Your task to perform on an android device: toggle pop-ups in chrome Image 0: 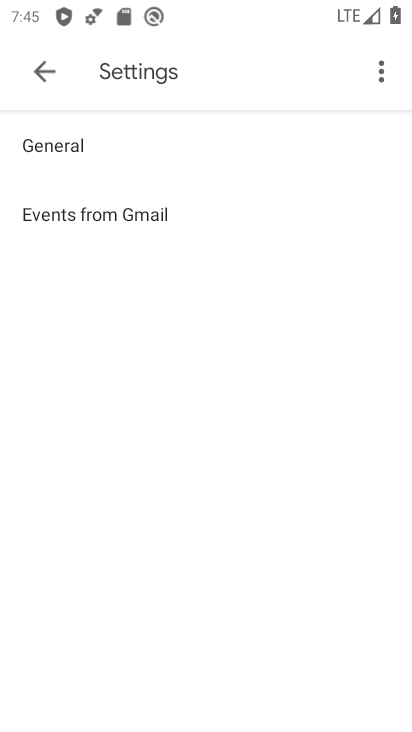
Step 0: press back button
Your task to perform on an android device: toggle pop-ups in chrome Image 1: 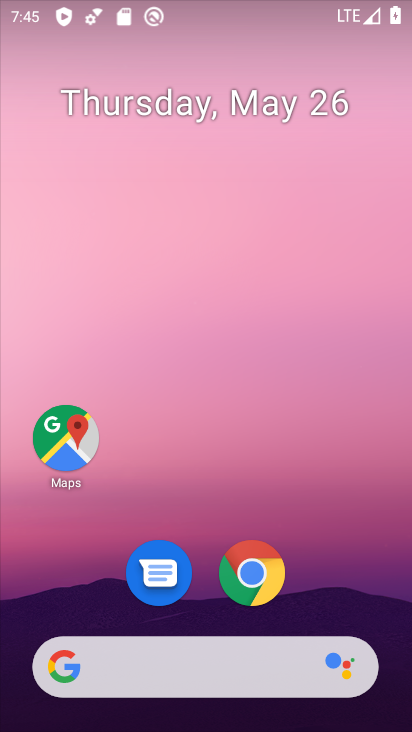
Step 1: drag from (266, 322) to (231, 58)
Your task to perform on an android device: toggle pop-ups in chrome Image 2: 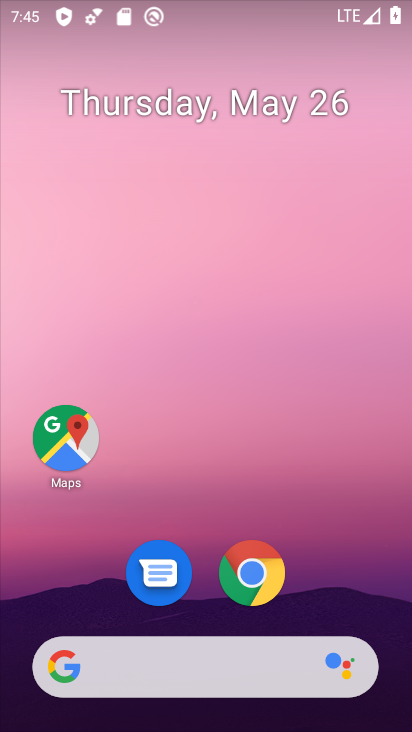
Step 2: drag from (342, 560) to (246, 18)
Your task to perform on an android device: toggle pop-ups in chrome Image 3: 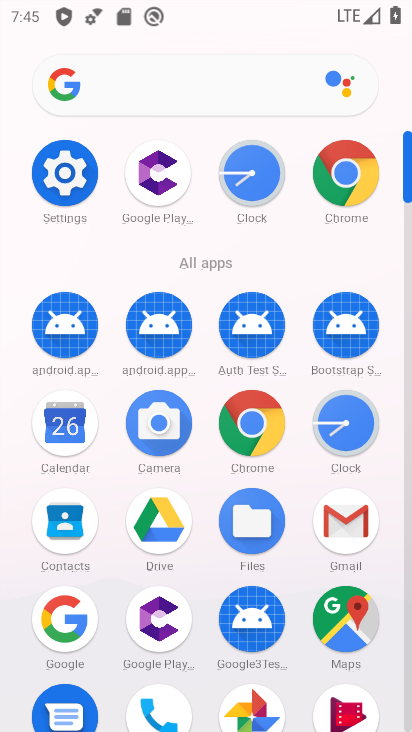
Step 3: click (250, 419)
Your task to perform on an android device: toggle pop-ups in chrome Image 4: 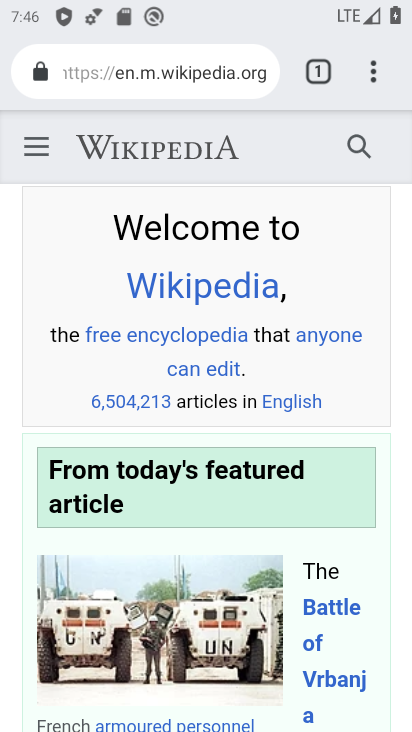
Step 4: drag from (373, 72) to (120, 575)
Your task to perform on an android device: toggle pop-ups in chrome Image 5: 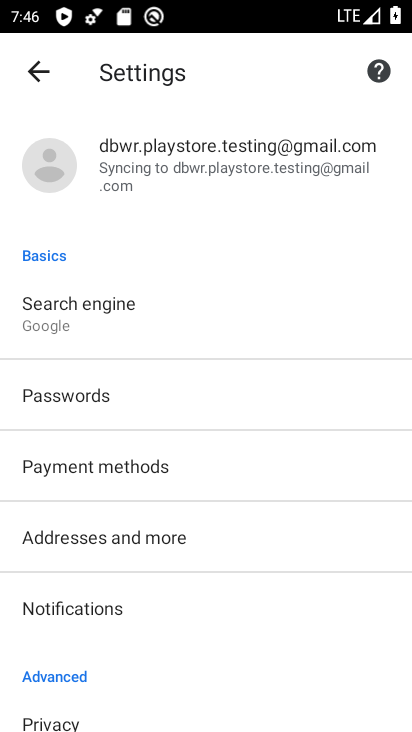
Step 5: drag from (170, 638) to (207, 289)
Your task to perform on an android device: toggle pop-ups in chrome Image 6: 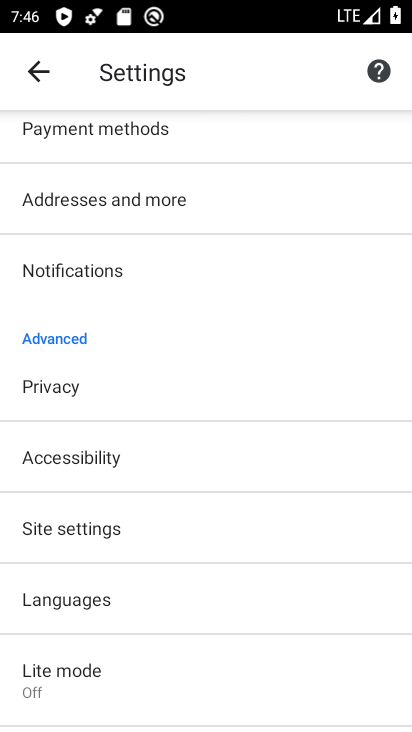
Step 6: click (107, 530)
Your task to perform on an android device: toggle pop-ups in chrome Image 7: 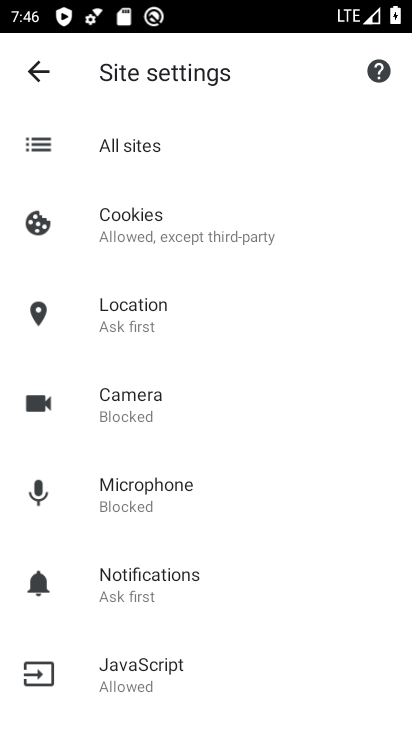
Step 7: drag from (210, 604) to (253, 196)
Your task to perform on an android device: toggle pop-ups in chrome Image 8: 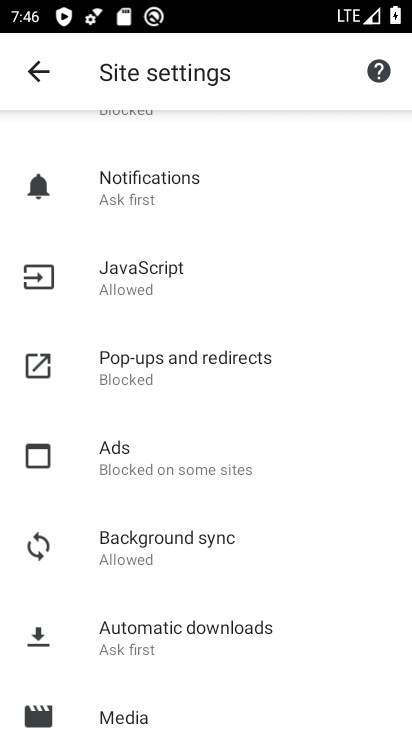
Step 8: click (161, 369)
Your task to perform on an android device: toggle pop-ups in chrome Image 9: 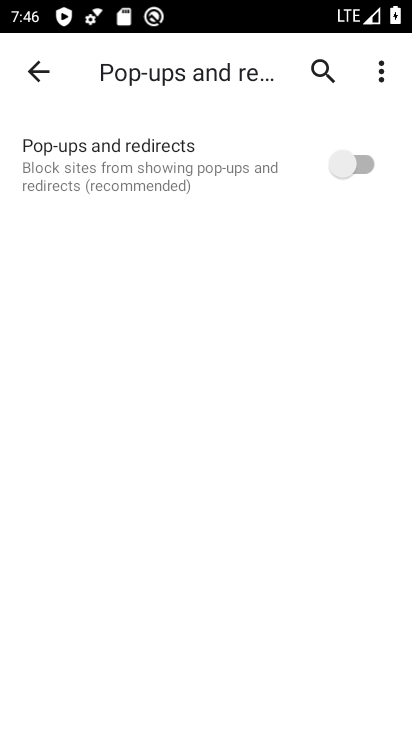
Step 9: click (355, 163)
Your task to perform on an android device: toggle pop-ups in chrome Image 10: 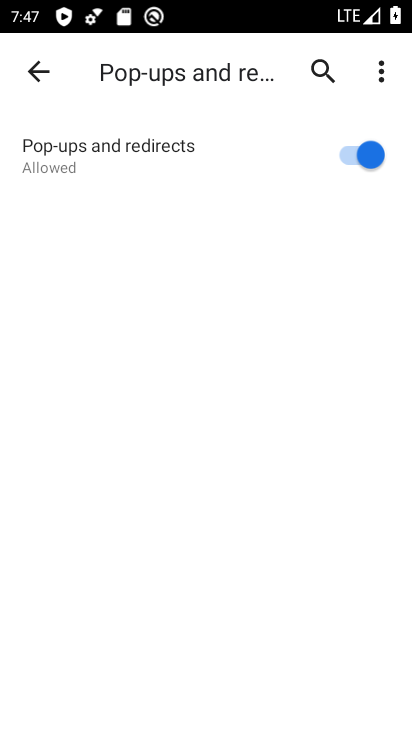
Step 10: task complete